Your task to perform on an android device: clear all cookies in the chrome app Image 0: 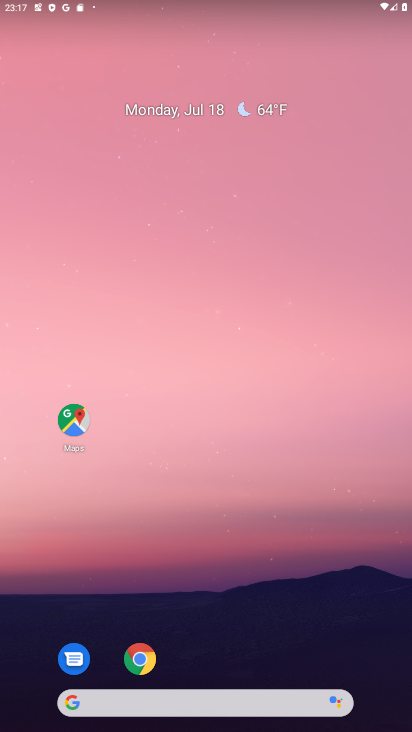
Step 0: drag from (306, 617) to (260, 0)
Your task to perform on an android device: clear all cookies in the chrome app Image 1: 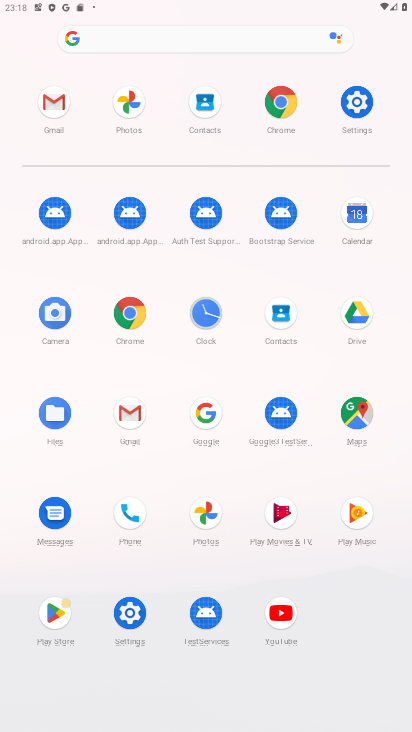
Step 1: click (121, 315)
Your task to perform on an android device: clear all cookies in the chrome app Image 2: 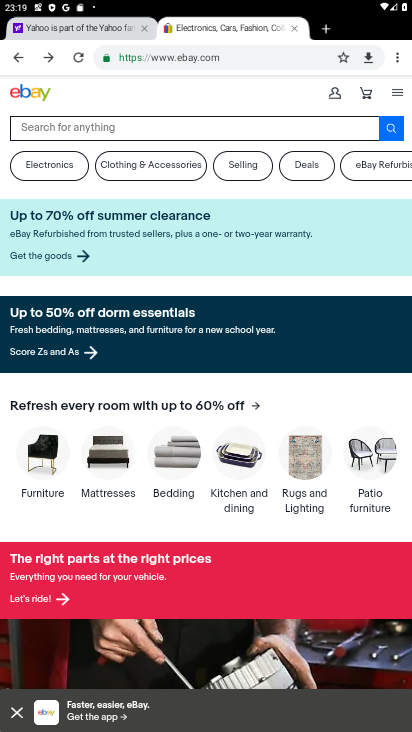
Step 2: drag from (398, 52) to (292, 416)
Your task to perform on an android device: clear all cookies in the chrome app Image 3: 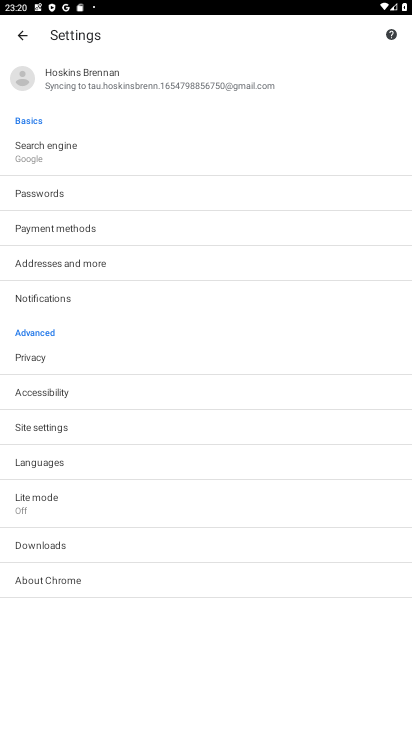
Step 3: click (44, 428)
Your task to perform on an android device: clear all cookies in the chrome app Image 4: 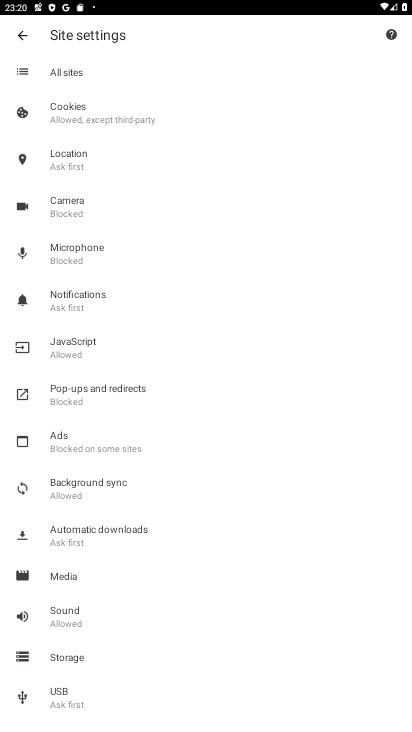
Step 4: click (117, 98)
Your task to perform on an android device: clear all cookies in the chrome app Image 5: 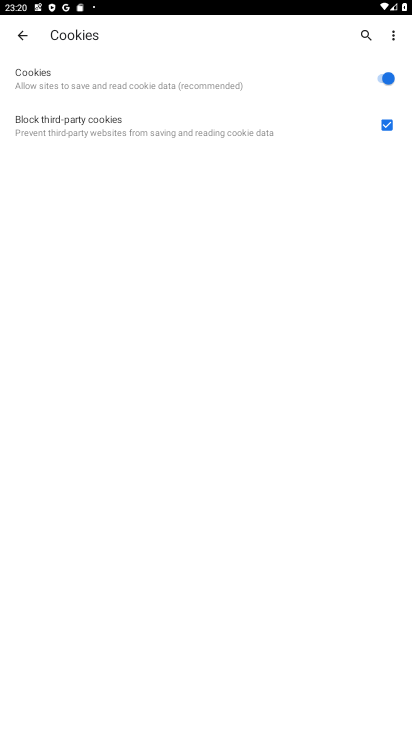
Step 5: click (33, 60)
Your task to perform on an android device: clear all cookies in the chrome app Image 6: 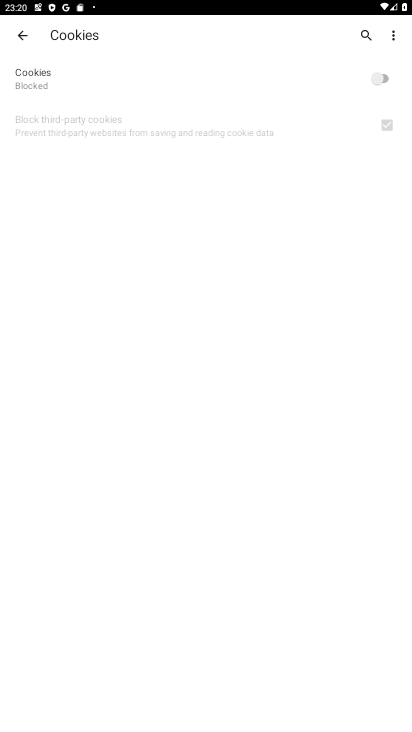
Step 6: click (33, 60)
Your task to perform on an android device: clear all cookies in the chrome app Image 7: 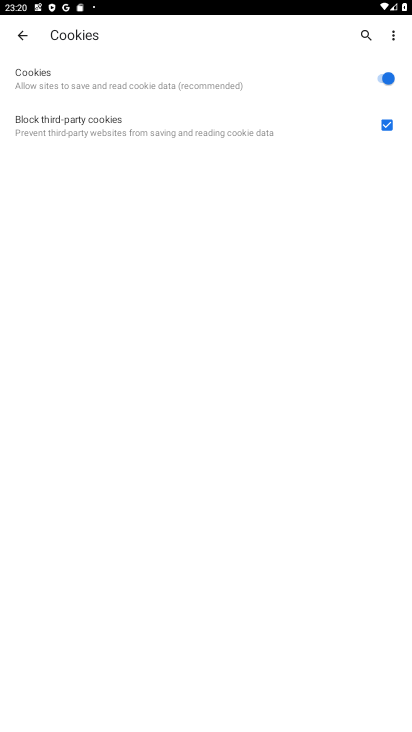
Step 7: click (20, 44)
Your task to perform on an android device: clear all cookies in the chrome app Image 8: 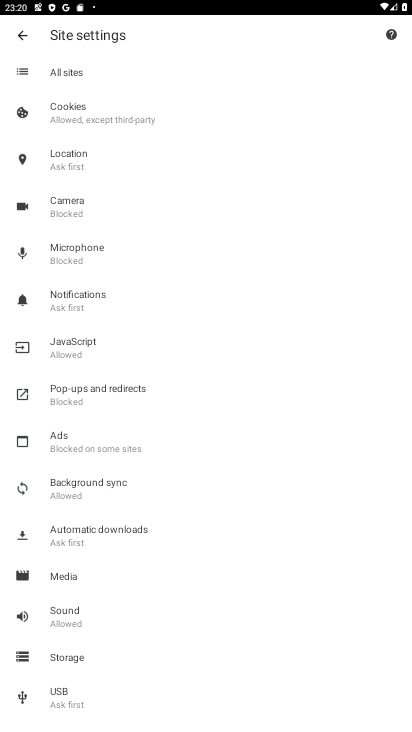
Step 8: drag from (150, 553) to (134, 258)
Your task to perform on an android device: clear all cookies in the chrome app Image 9: 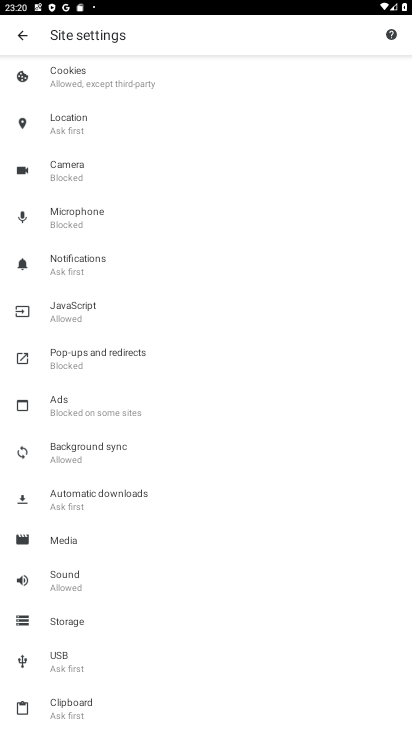
Step 9: click (22, 53)
Your task to perform on an android device: clear all cookies in the chrome app Image 10: 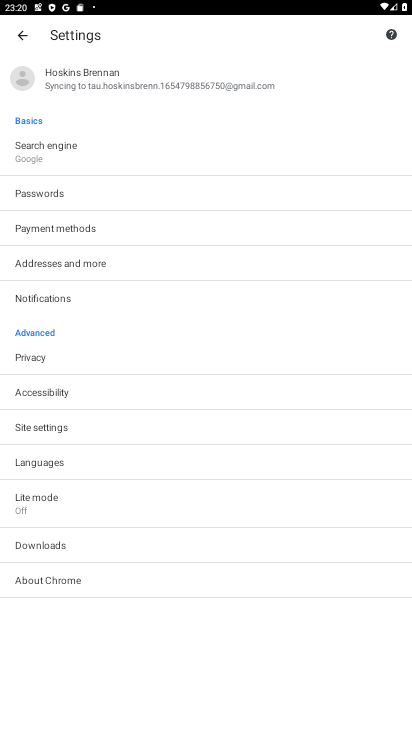
Step 10: click (1, 361)
Your task to perform on an android device: clear all cookies in the chrome app Image 11: 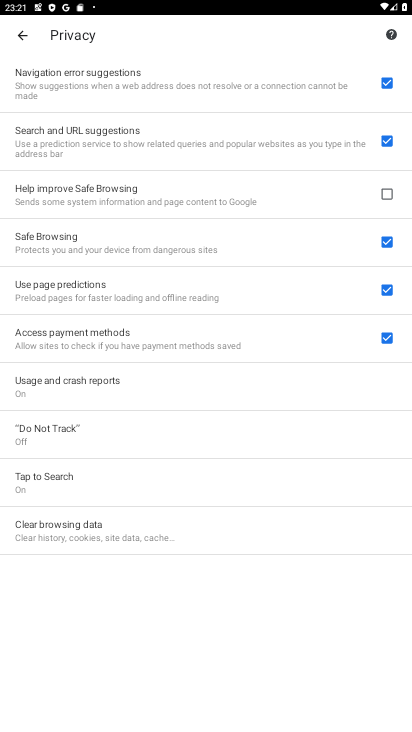
Step 11: click (79, 531)
Your task to perform on an android device: clear all cookies in the chrome app Image 12: 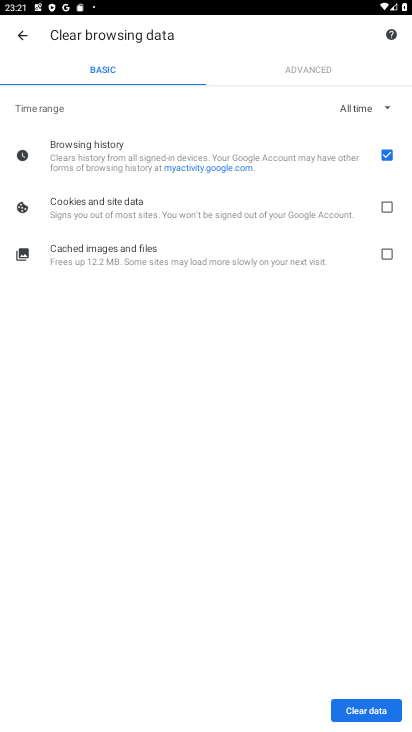
Step 12: click (351, 208)
Your task to perform on an android device: clear all cookies in the chrome app Image 13: 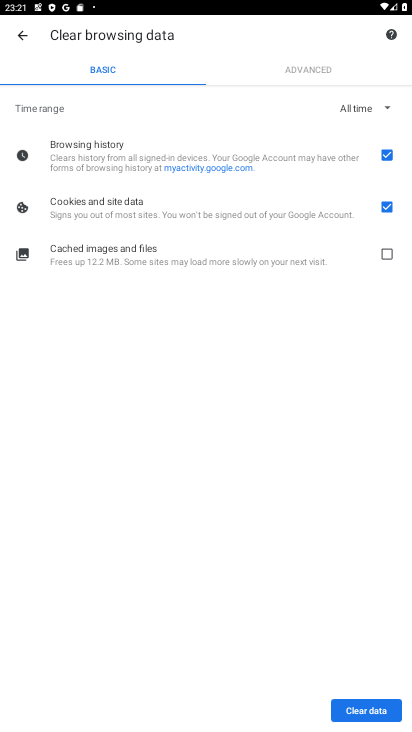
Step 13: click (375, 253)
Your task to perform on an android device: clear all cookies in the chrome app Image 14: 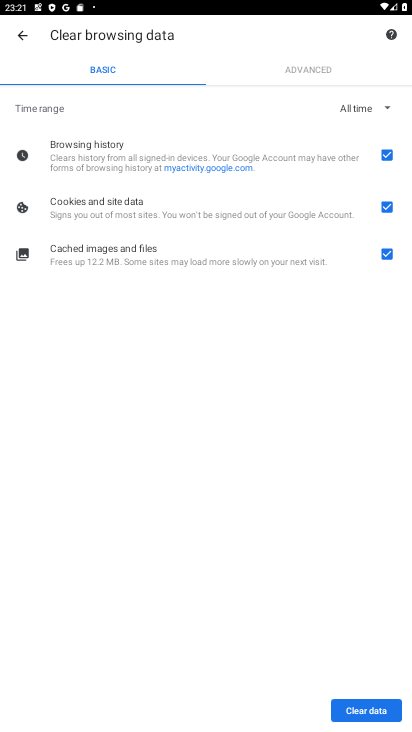
Step 14: click (368, 702)
Your task to perform on an android device: clear all cookies in the chrome app Image 15: 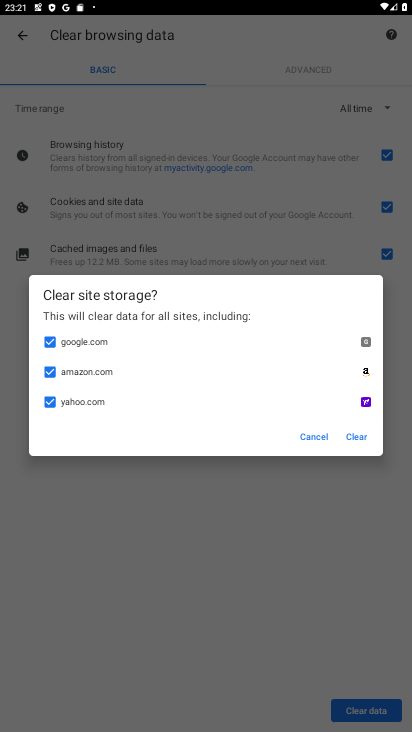
Step 15: click (357, 447)
Your task to perform on an android device: clear all cookies in the chrome app Image 16: 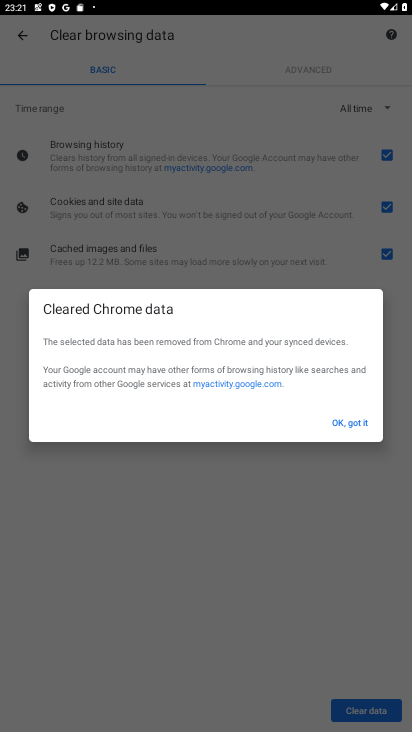
Step 16: click (374, 426)
Your task to perform on an android device: clear all cookies in the chrome app Image 17: 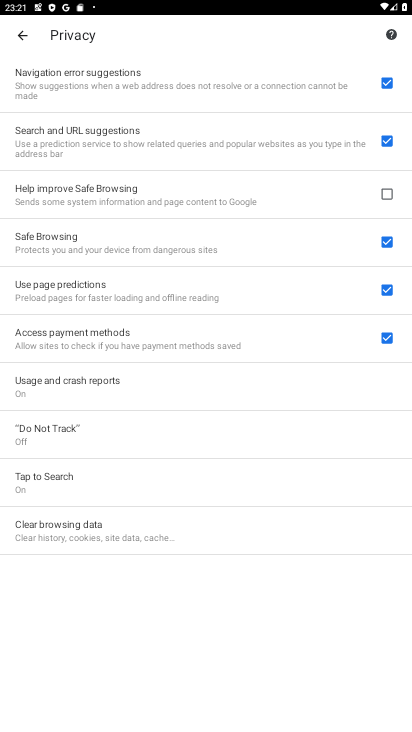
Step 17: task complete